Your task to perform on an android device: turn vacation reply on in the gmail app Image 0: 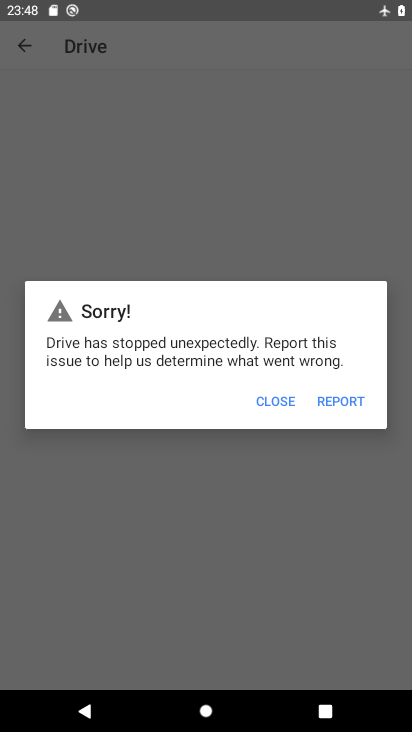
Step 0: press home button
Your task to perform on an android device: turn vacation reply on in the gmail app Image 1: 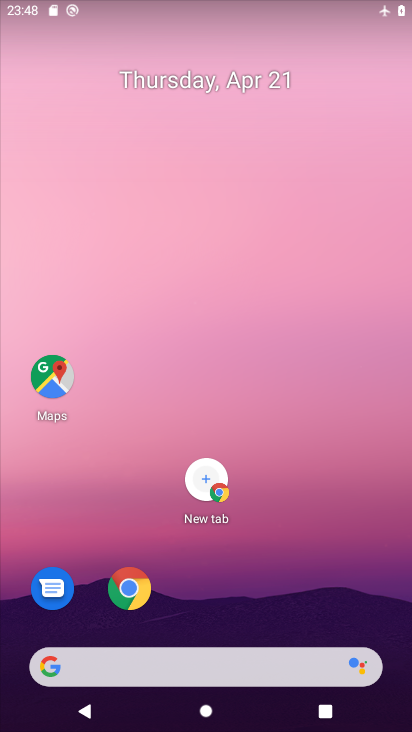
Step 1: drag from (205, 586) to (242, 5)
Your task to perform on an android device: turn vacation reply on in the gmail app Image 2: 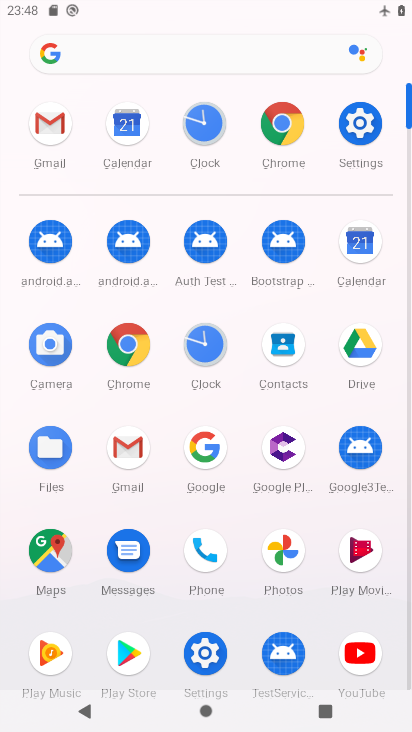
Step 2: click (116, 496)
Your task to perform on an android device: turn vacation reply on in the gmail app Image 3: 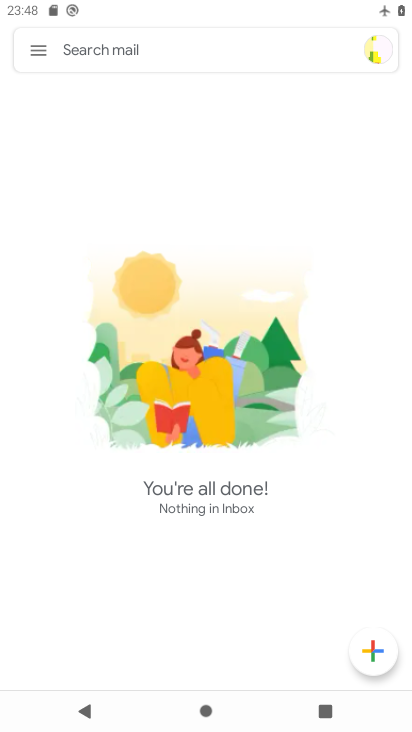
Step 3: click (40, 50)
Your task to perform on an android device: turn vacation reply on in the gmail app Image 4: 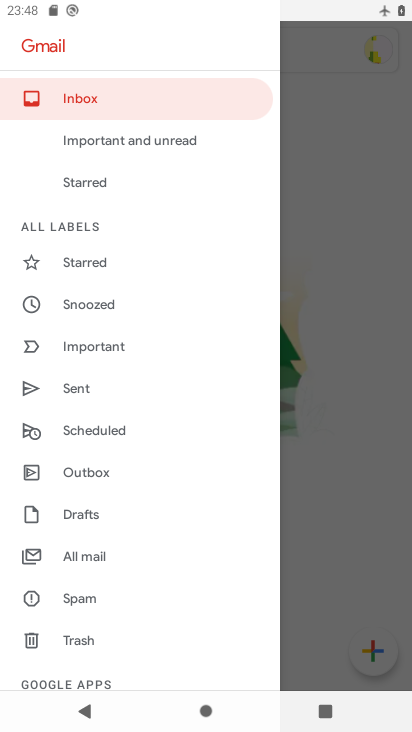
Step 4: drag from (164, 595) to (202, 249)
Your task to perform on an android device: turn vacation reply on in the gmail app Image 5: 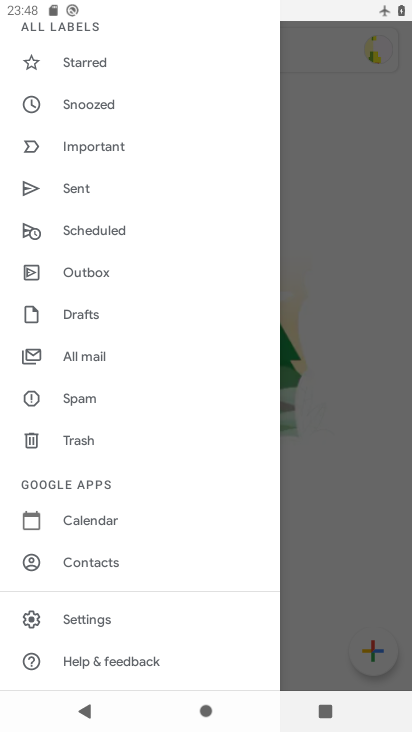
Step 5: click (86, 624)
Your task to perform on an android device: turn vacation reply on in the gmail app Image 6: 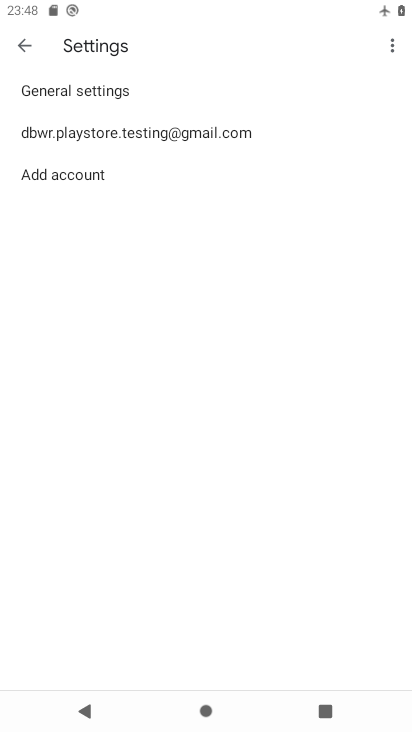
Step 6: click (151, 136)
Your task to perform on an android device: turn vacation reply on in the gmail app Image 7: 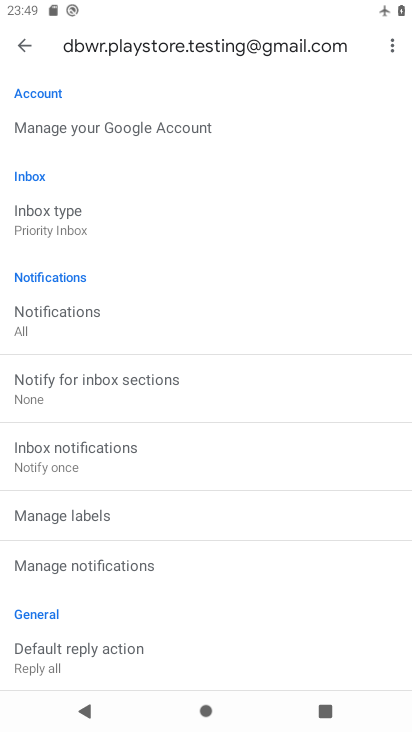
Step 7: drag from (109, 566) to (135, 127)
Your task to perform on an android device: turn vacation reply on in the gmail app Image 8: 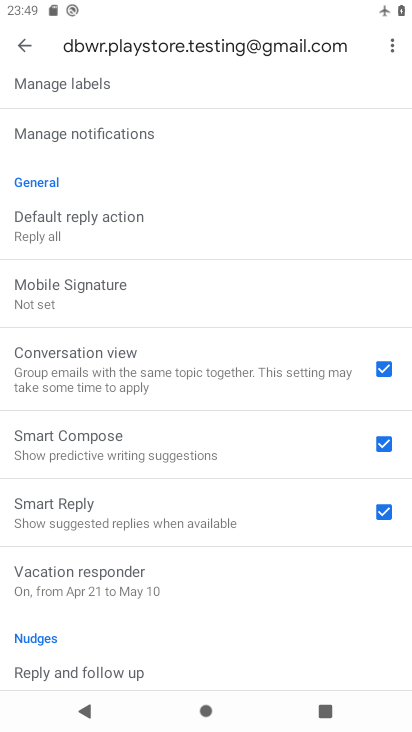
Step 8: click (107, 585)
Your task to perform on an android device: turn vacation reply on in the gmail app Image 9: 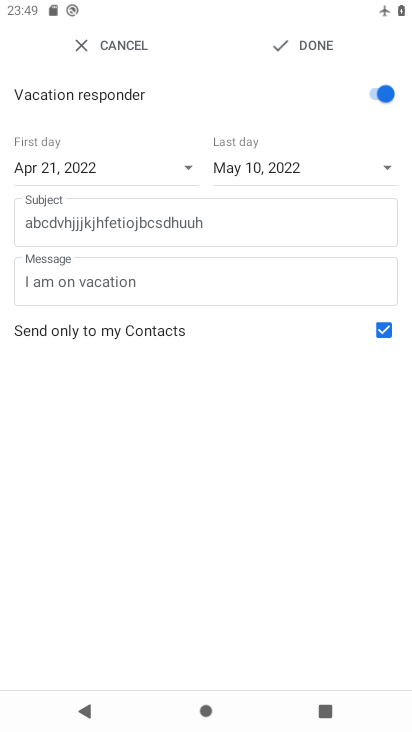
Step 9: task complete